Your task to perform on an android device: Open privacy settings Image 0: 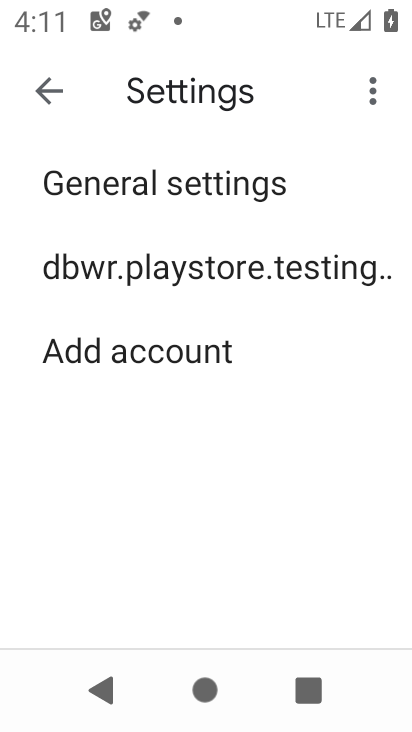
Step 0: press home button
Your task to perform on an android device: Open privacy settings Image 1: 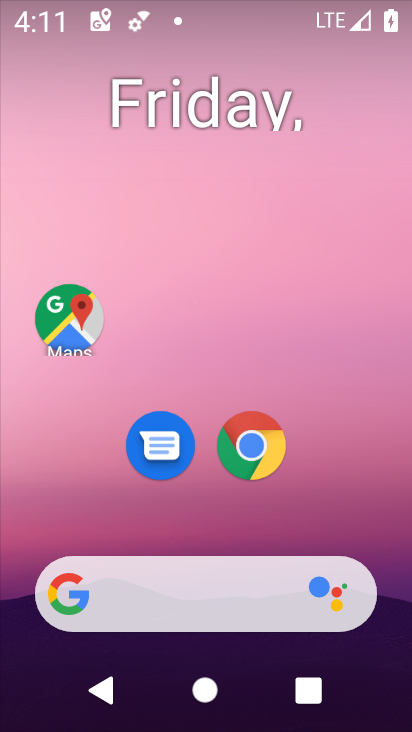
Step 1: drag from (309, 509) to (287, 125)
Your task to perform on an android device: Open privacy settings Image 2: 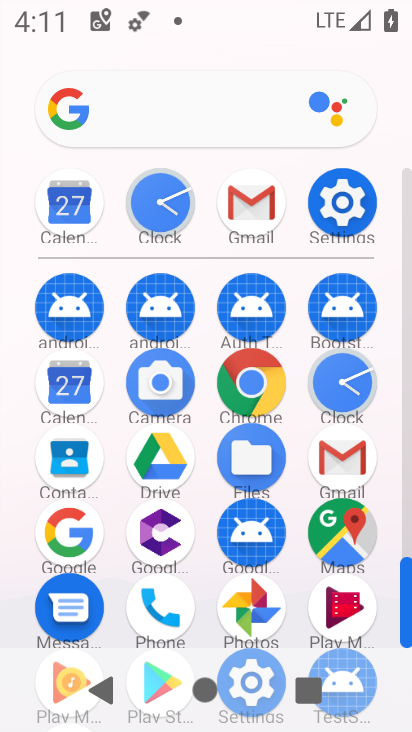
Step 2: click (356, 197)
Your task to perform on an android device: Open privacy settings Image 3: 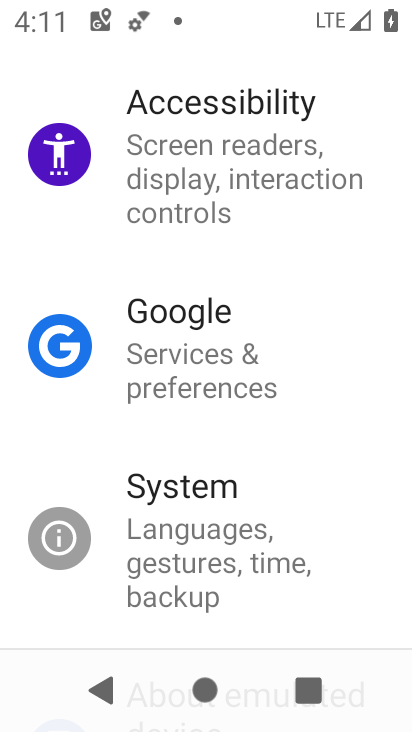
Step 3: drag from (281, 254) to (317, 662)
Your task to perform on an android device: Open privacy settings Image 4: 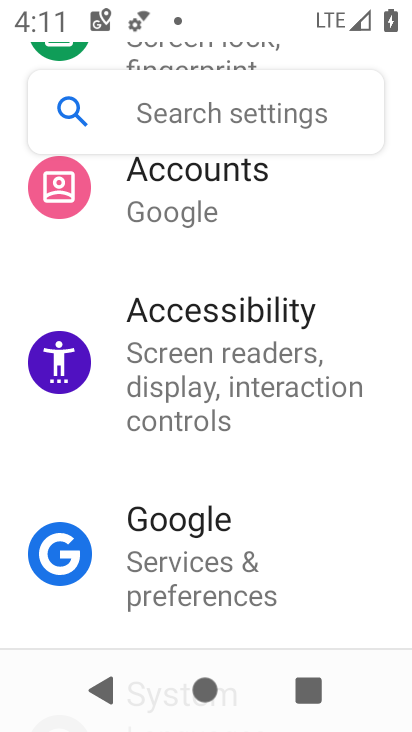
Step 4: drag from (251, 223) to (225, 629)
Your task to perform on an android device: Open privacy settings Image 5: 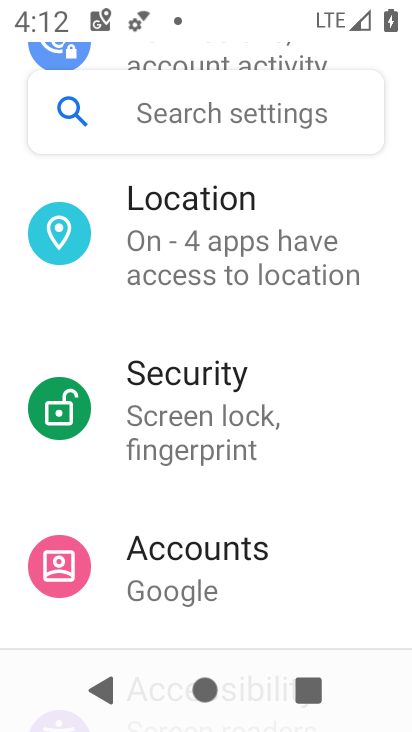
Step 5: drag from (254, 194) to (253, 585)
Your task to perform on an android device: Open privacy settings Image 6: 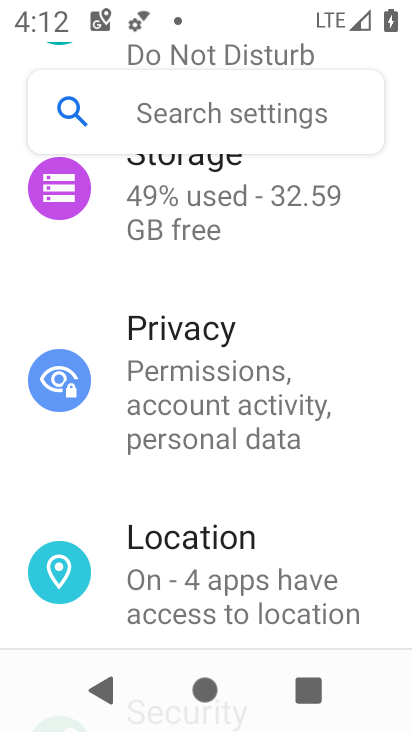
Step 6: click (237, 436)
Your task to perform on an android device: Open privacy settings Image 7: 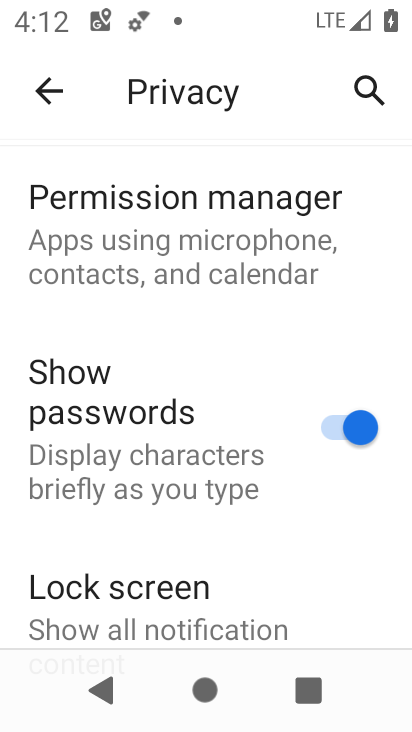
Step 7: task complete